Your task to perform on an android device: check data usage Image 0: 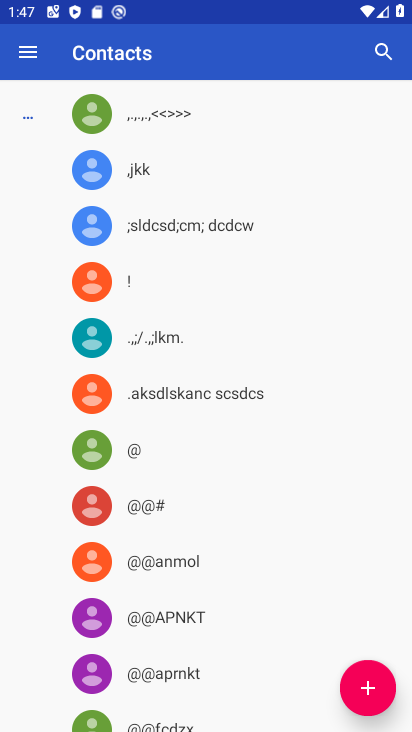
Step 0: press home button
Your task to perform on an android device: check data usage Image 1: 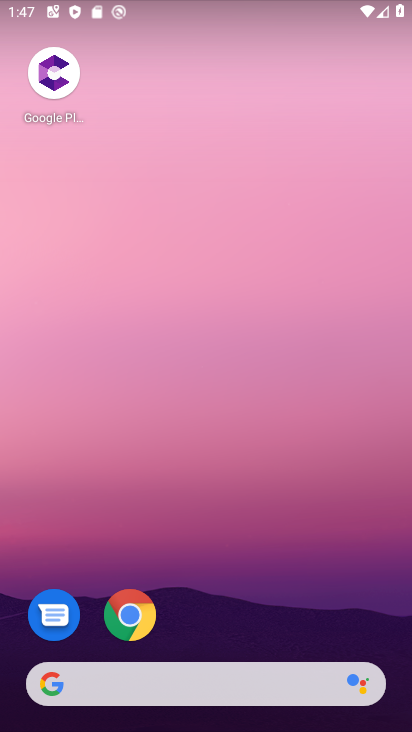
Step 1: drag from (232, 462) to (227, 225)
Your task to perform on an android device: check data usage Image 2: 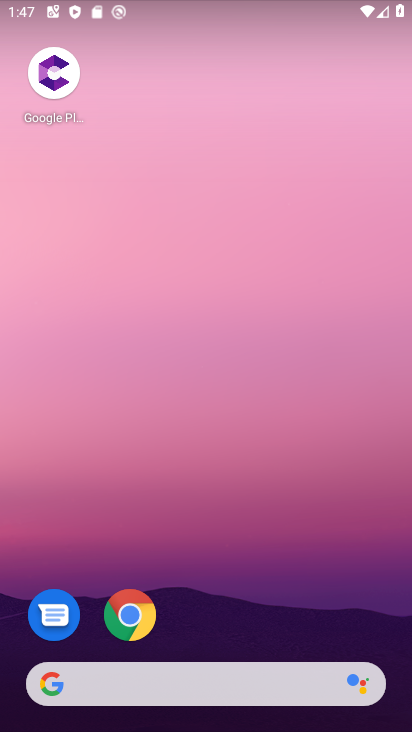
Step 2: drag from (279, 624) to (286, 91)
Your task to perform on an android device: check data usage Image 3: 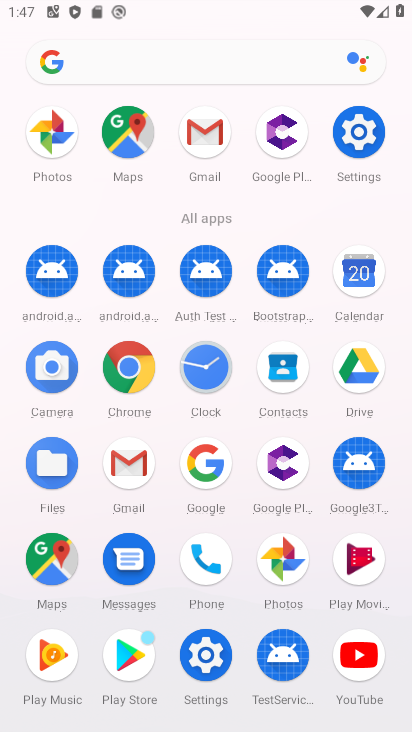
Step 3: click (352, 112)
Your task to perform on an android device: check data usage Image 4: 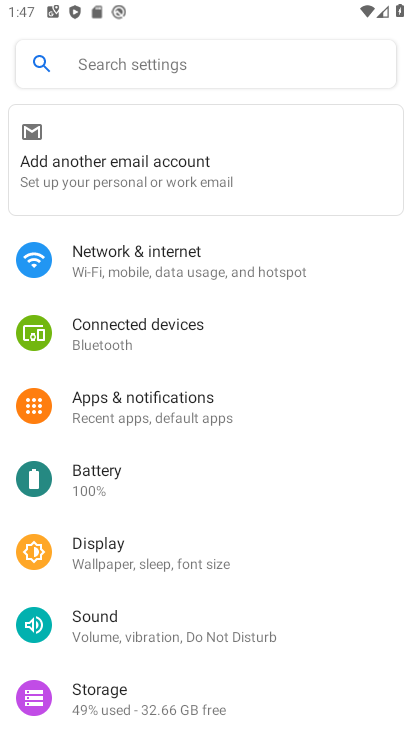
Step 4: click (228, 257)
Your task to perform on an android device: check data usage Image 5: 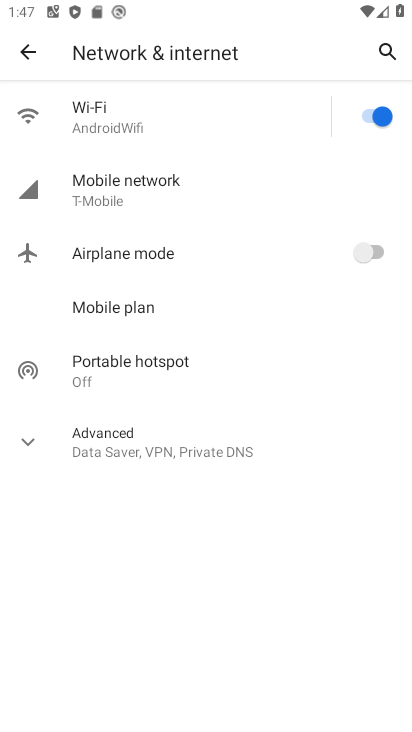
Step 5: click (141, 169)
Your task to perform on an android device: check data usage Image 6: 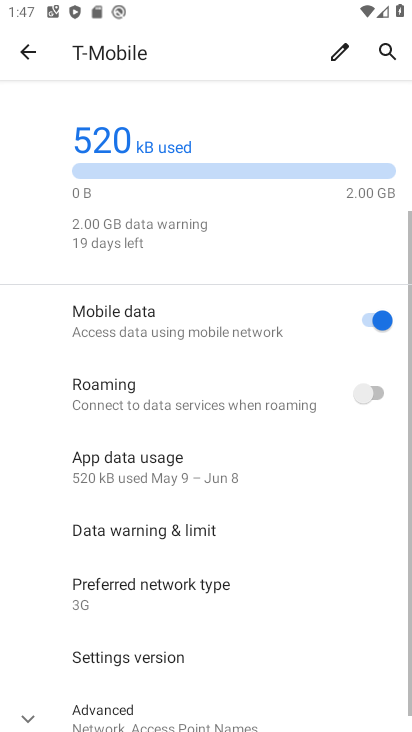
Step 6: task complete